Your task to perform on an android device: Go to display settings Image 0: 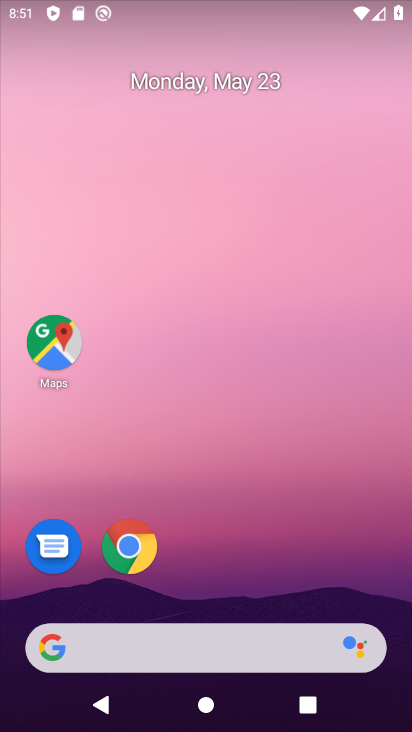
Step 0: drag from (265, 576) to (284, 100)
Your task to perform on an android device: Go to display settings Image 1: 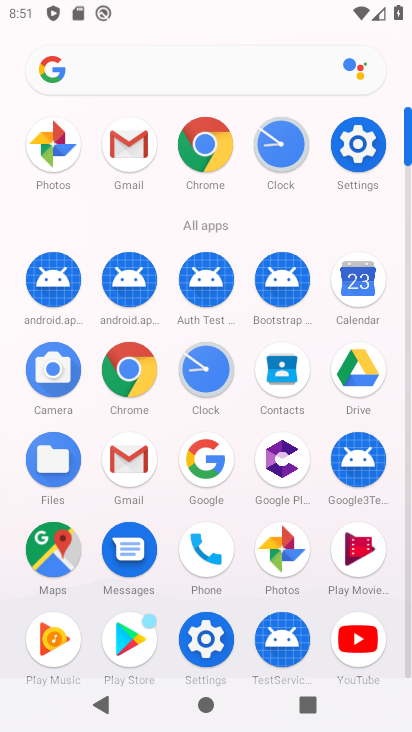
Step 1: click (362, 160)
Your task to perform on an android device: Go to display settings Image 2: 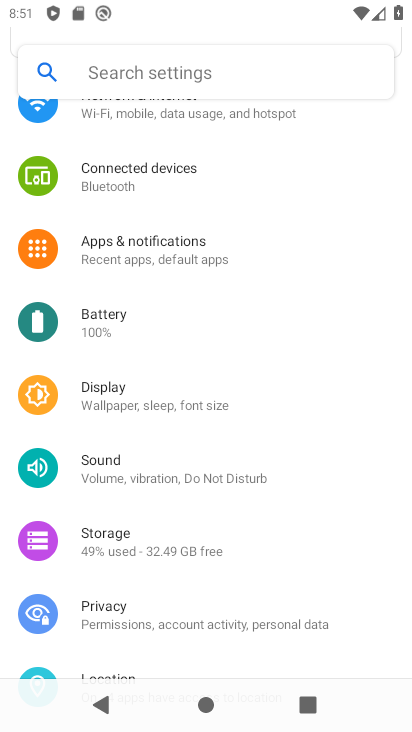
Step 2: drag from (204, 205) to (153, 502)
Your task to perform on an android device: Go to display settings Image 3: 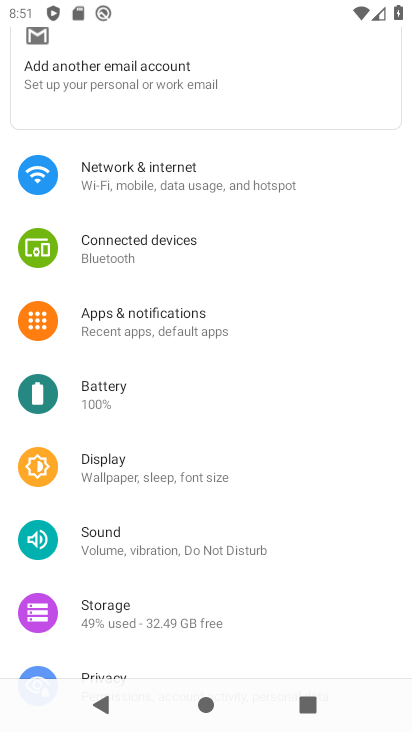
Step 3: click (122, 472)
Your task to perform on an android device: Go to display settings Image 4: 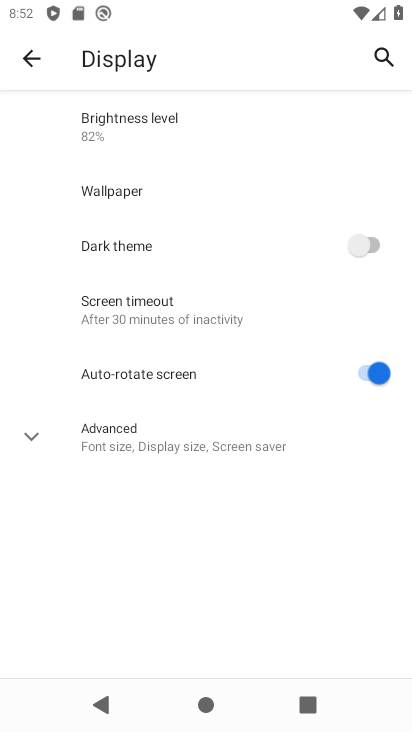
Step 4: task complete